Your task to perform on an android device: see sites visited before in the chrome app Image 0: 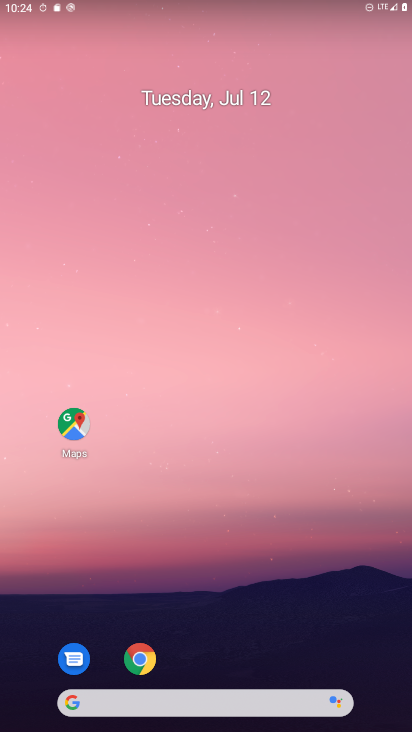
Step 0: drag from (384, 684) to (260, 90)
Your task to perform on an android device: see sites visited before in the chrome app Image 1: 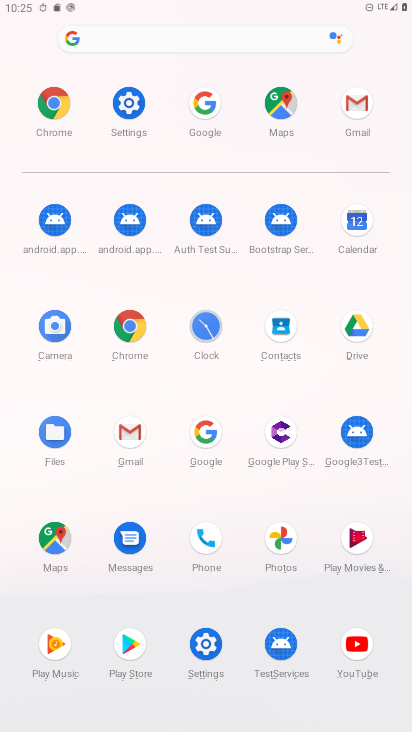
Step 1: click (135, 335)
Your task to perform on an android device: see sites visited before in the chrome app Image 2: 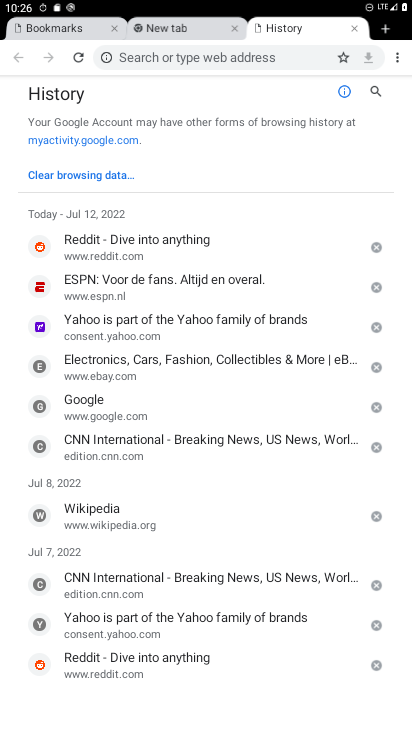
Step 2: task complete